Your task to perform on an android device: Add rayovac triple a to the cart on walmart, then select checkout. Image 0: 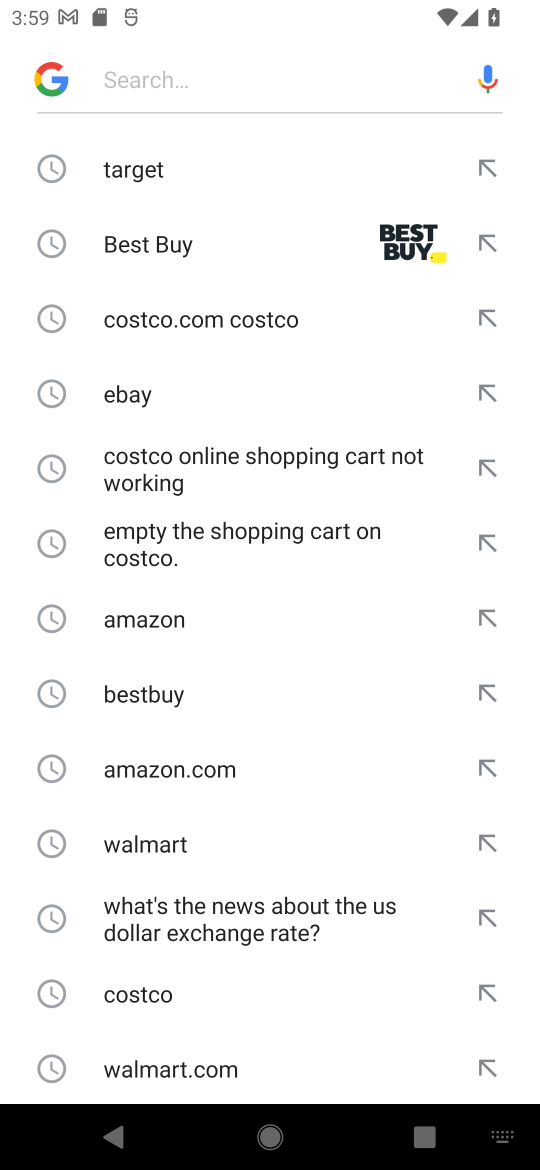
Step 0: type "walmart"
Your task to perform on an android device: Add rayovac triple a to the cart on walmart, then select checkout. Image 1: 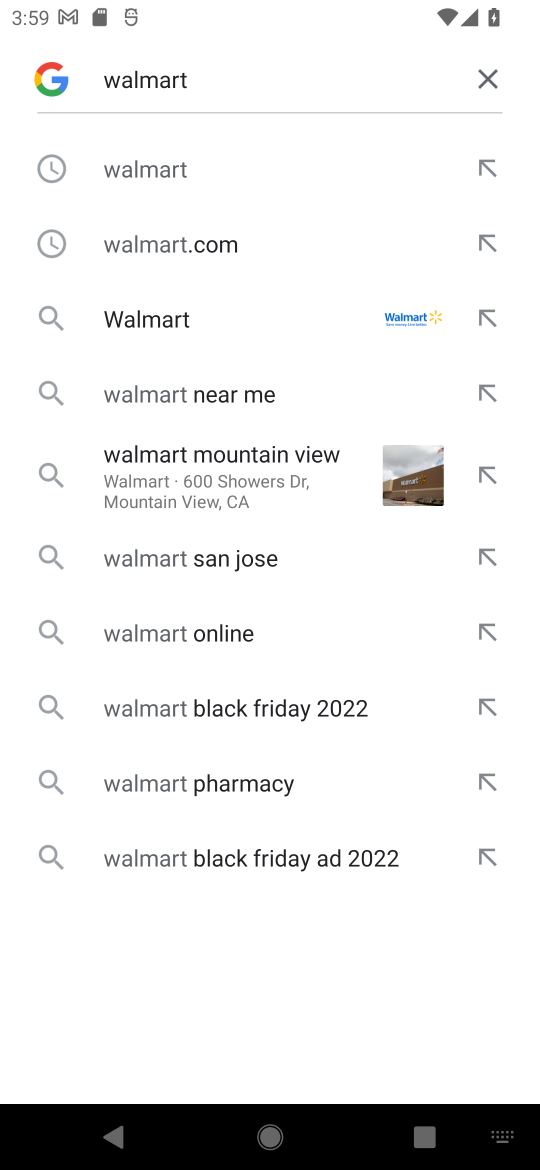
Step 1: click (192, 239)
Your task to perform on an android device: Add rayovac triple a to the cart on walmart, then select checkout. Image 2: 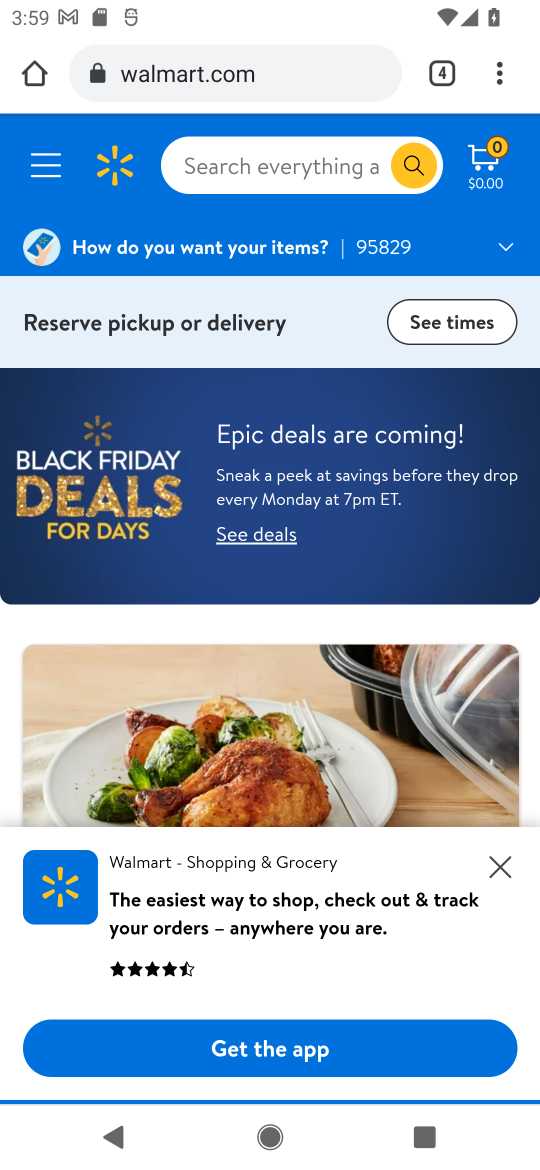
Step 2: click (268, 173)
Your task to perform on an android device: Add rayovac triple a to the cart on walmart, then select checkout. Image 3: 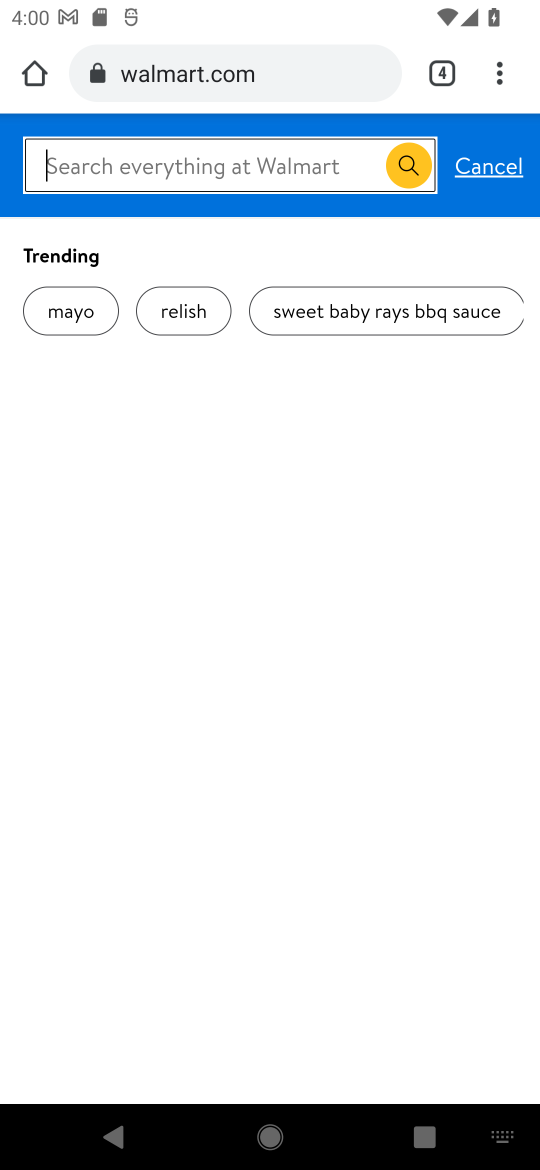
Step 3: click (268, 173)
Your task to perform on an android device: Add rayovac triple a to the cart on walmart, then select checkout. Image 4: 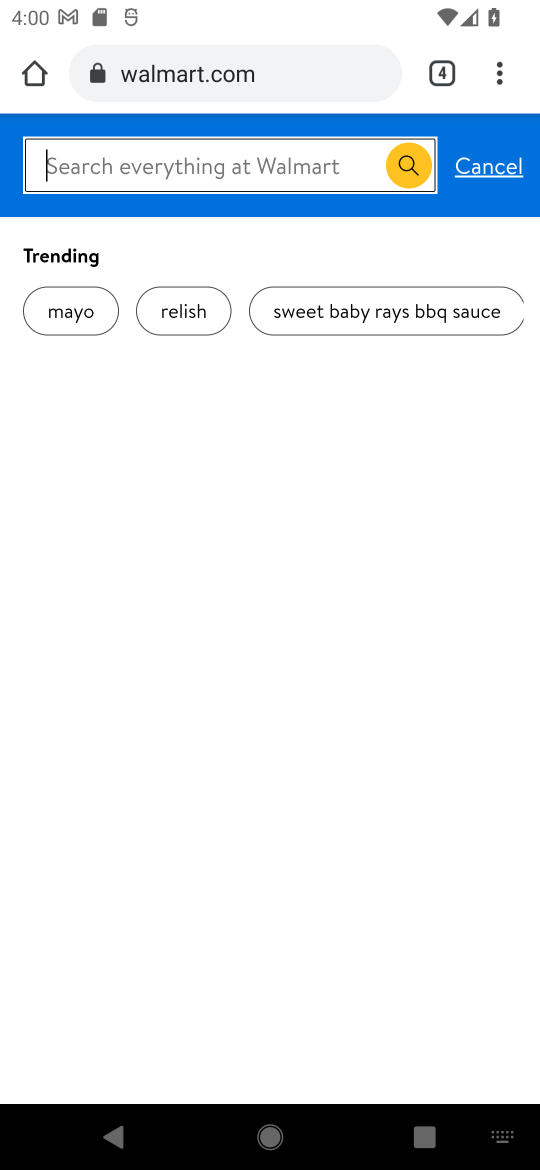
Step 4: type "rayovac triple a "
Your task to perform on an android device: Add rayovac triple a to the cart on walmart, then select checkout. Image 5: 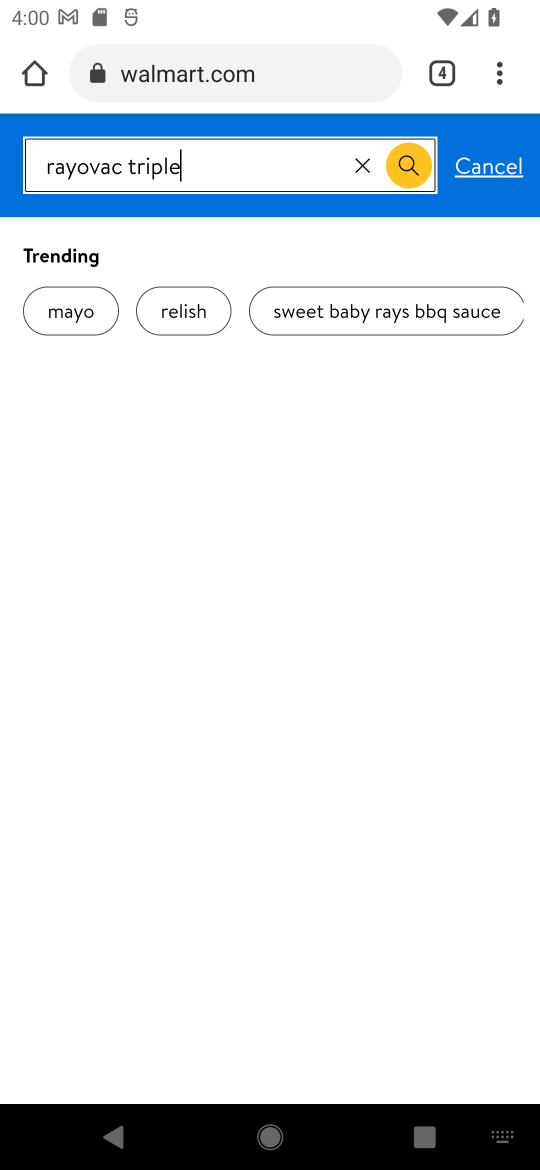
Step 5: type ""
Your task to perform on an android device: Add rayovac triple a to the cart on walmart, then select checkout. Image 6: 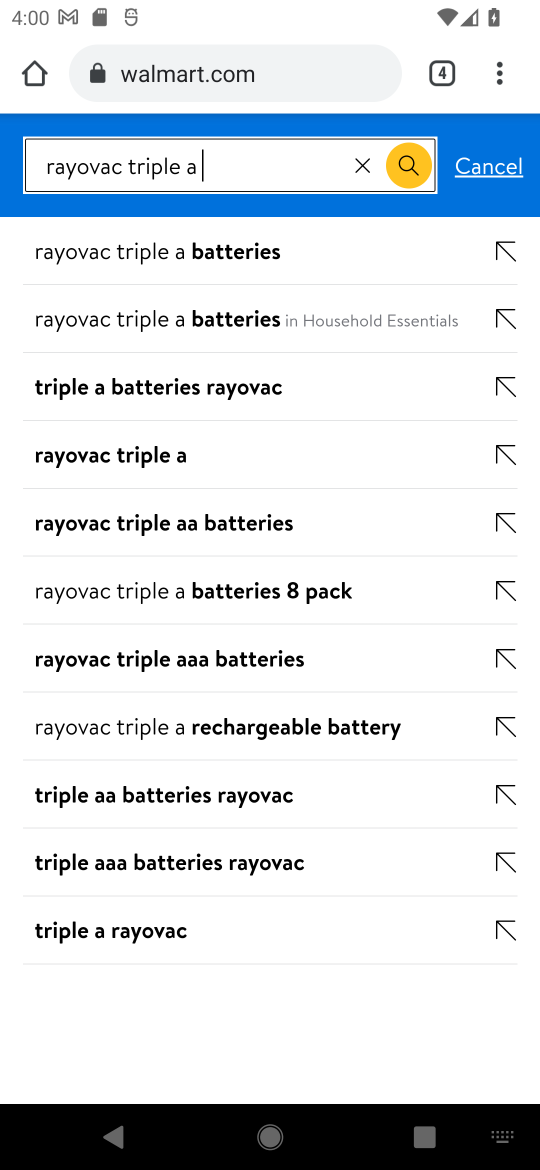
Step 6: press enter
Your task to perform on an android device: Add rayovac triple a to the cart on walmart, then select checkout. Image 7: 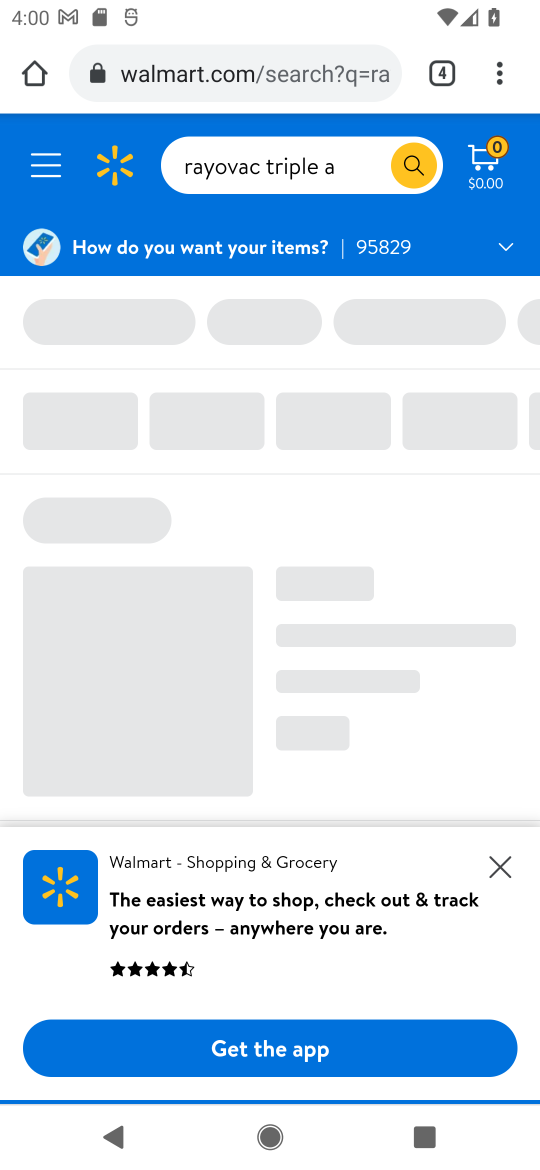
Step 7: click (507, 862)
Your task to perform on an android device: Add rayovac triple a to the cart on walmart, then select checkout. Image 8: 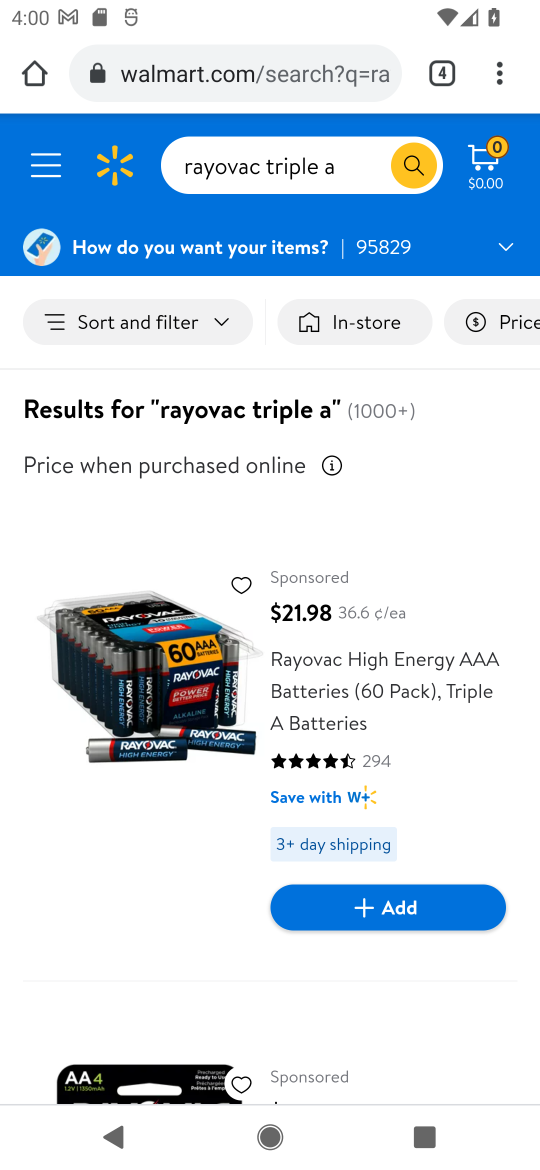
Step 8: click (441, 922)
Your task to perform on an android device: Add rayovac triple a to the cart on walmart, then select checkout. Image 9: 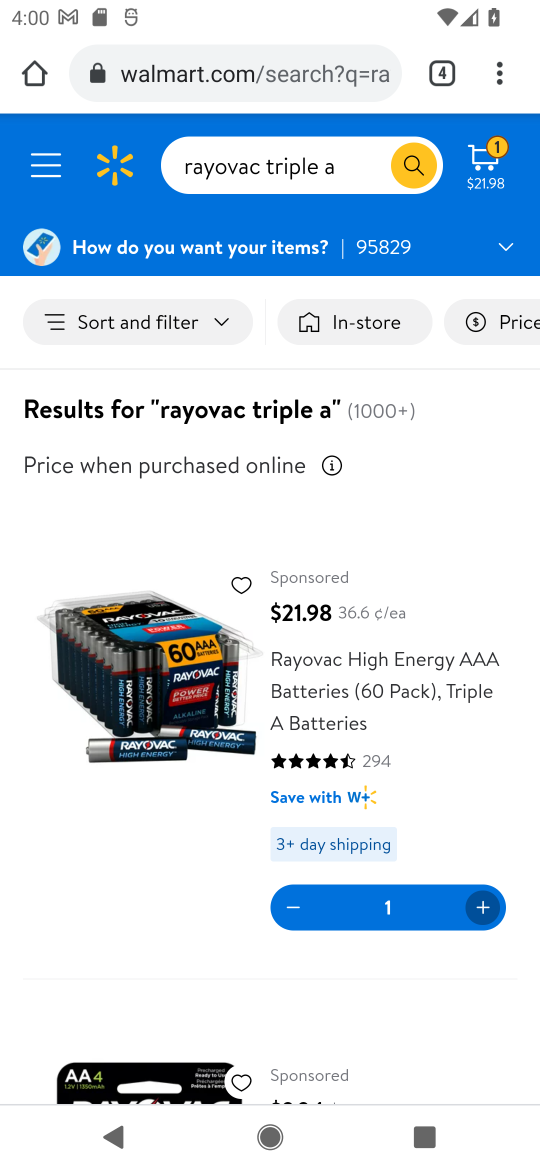
Step 9: click (482, 916)
Your task to perform on an android device: Add rayovac triple a to the cart on walmart, then select checkout. Image 10: 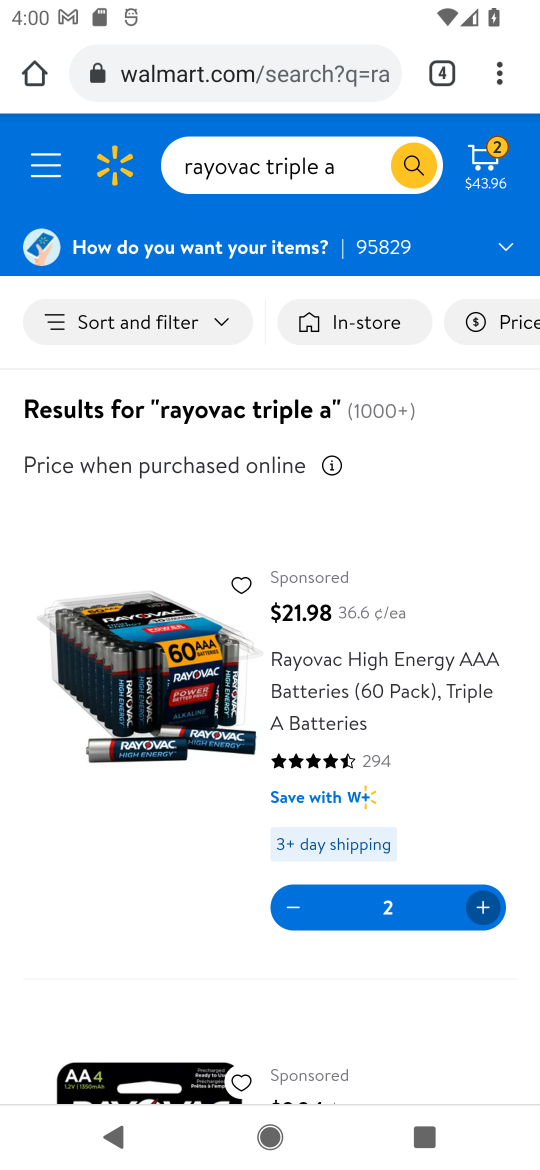
Step 10: task complete